Your task to perform on an android device: Open Android settings Image 0: 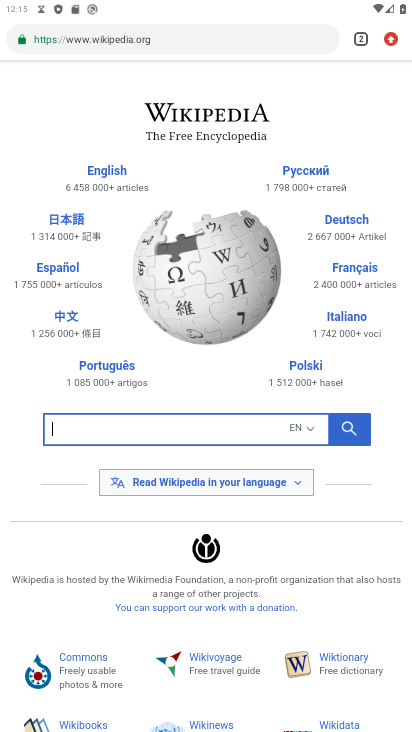
Step 0: press home button
Your task to perform on an android device: Open Android settings Image 1: 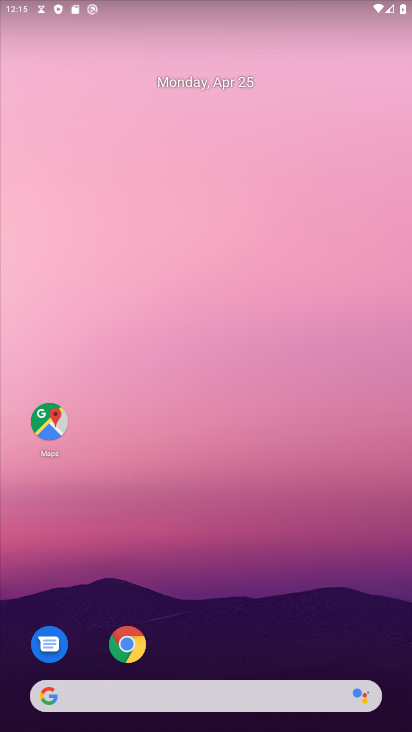
Step 1: drag from (344, 644) to (346, 9)
Your task to perform on an android device: Open Android settings Image 2: 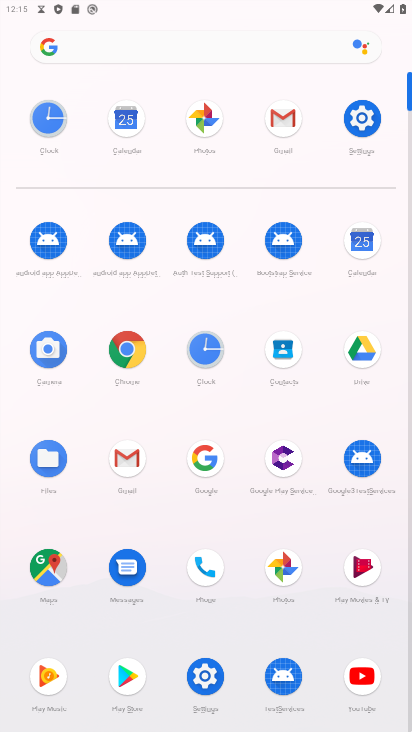
Step 2: click (363, 124)
Your task to perform on an android device: Open Android settings Image 3: 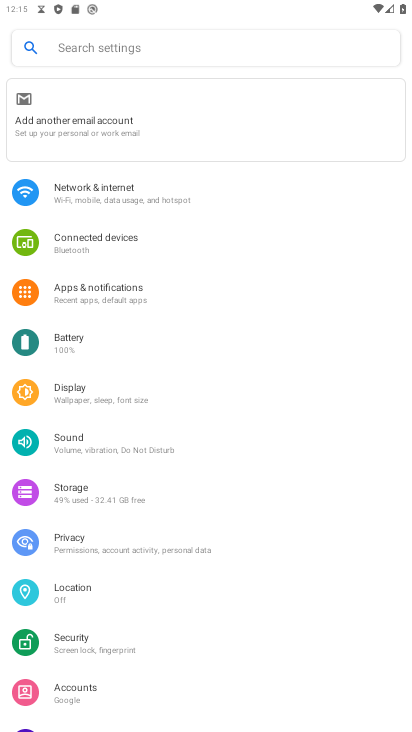
Step 3: task complete